Your task to perform on an android device: Go to Wikipedia Image 0: 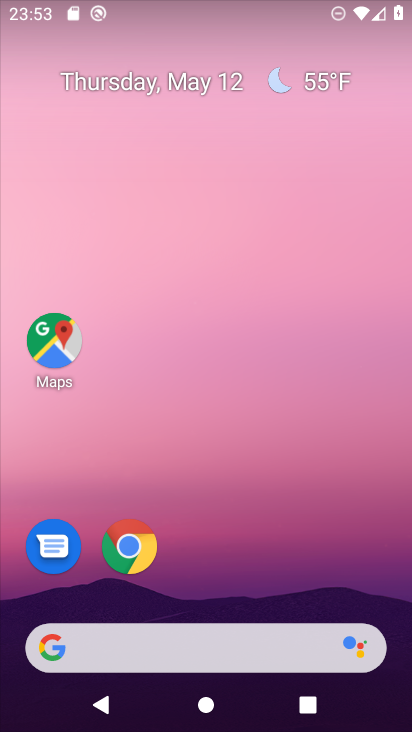
Step 0: drag from (167, 604) to (194, 148)
Your task to perform on an android device: Go to Wikipedia Image 1: 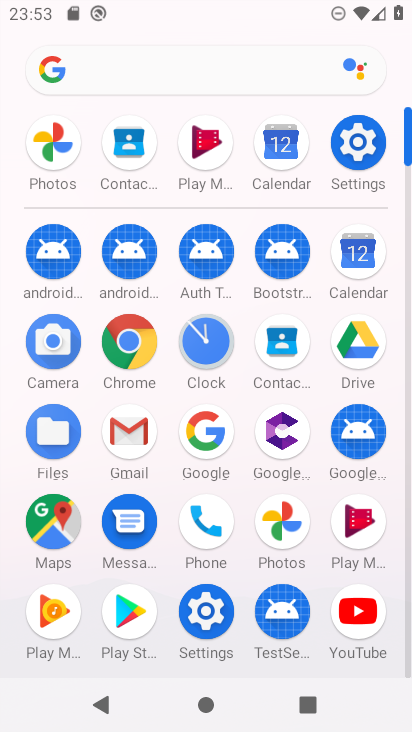
Step 1: click (133, 339)
Your task to perform on an android device: Go to Wikipedia Image 2: 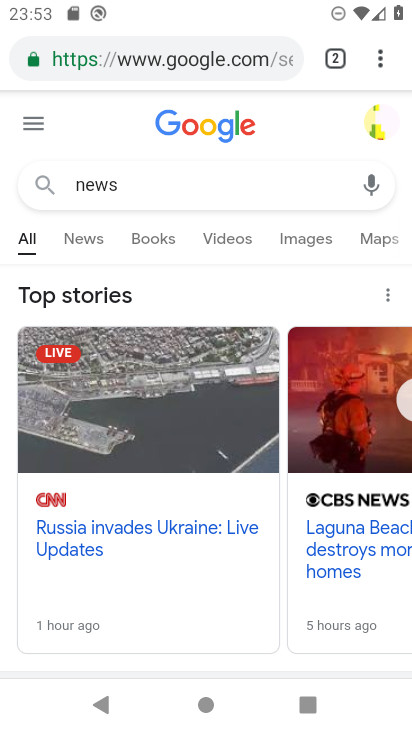
Step 2: click (115, 58)
Your task to perform on an android device: Go to Wikipedia Image 3: 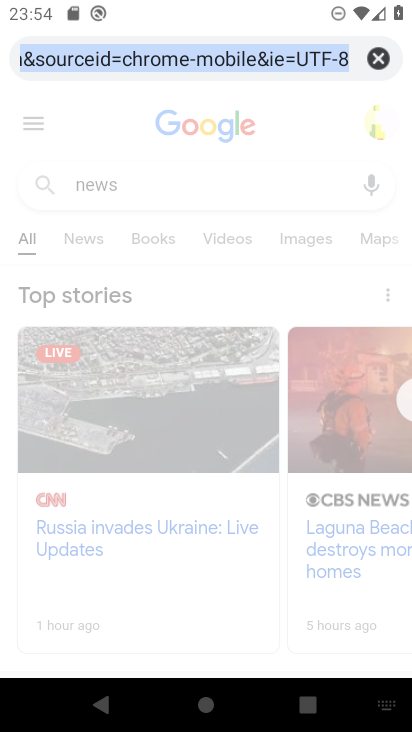
Step 3: type "wikipedia"
Your task to perform on an android device: Go to Wikipedia Image 4: 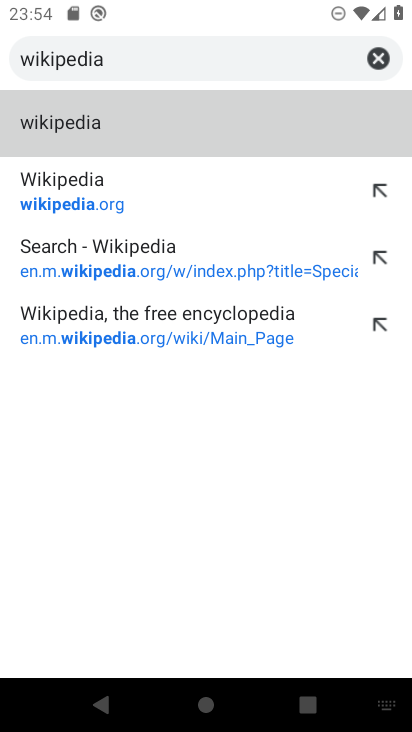
Step 4: click (128, 142)
Your task to perform on an android device: Go to Wikipedia Image 5: 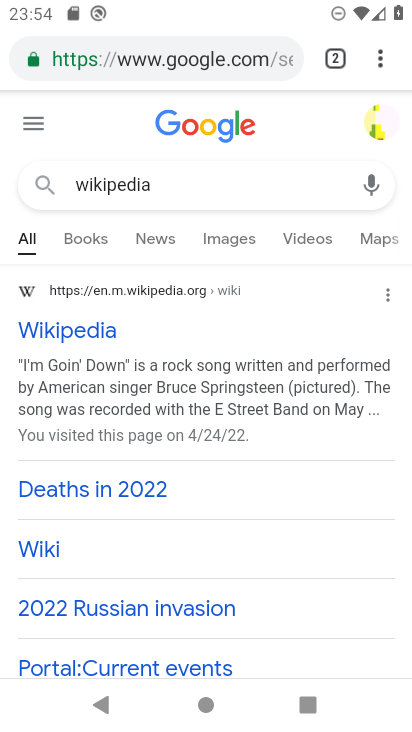
Step 5: task complete